Your task to perform on an android device: find which apps use the phone's location Image 0: 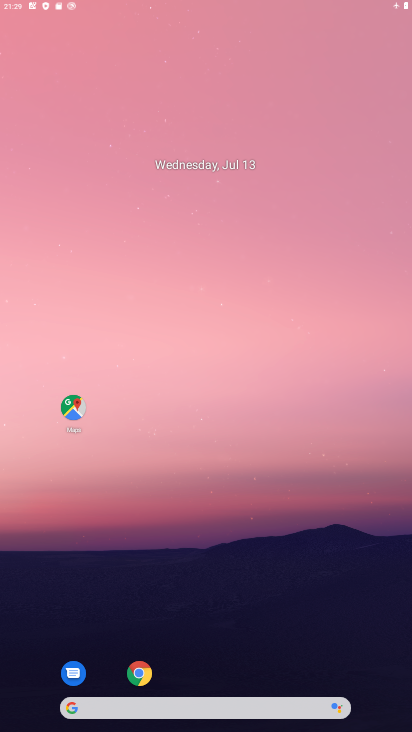
Step 0: click (202, 16)
Your task to perform on an android device: find which apps use the phone's location Image 1: 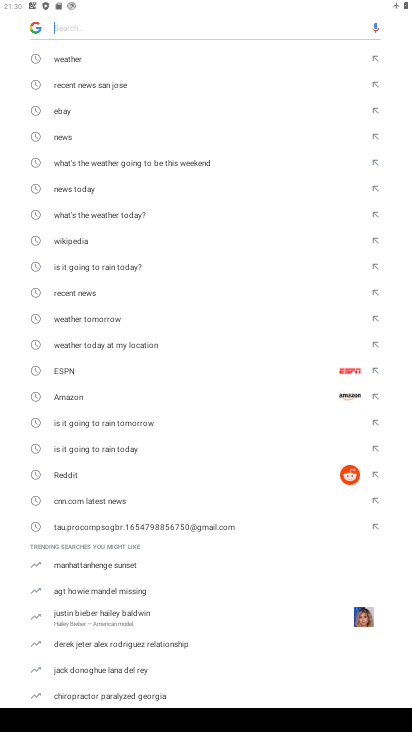
Step 1: press back button
Your task to perform on an android device: find which apps use the phone's location Image 2: 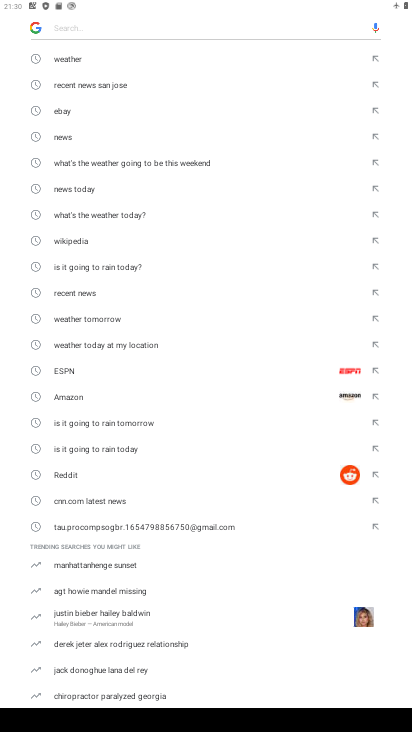
Step 2: press home button
Your task to perform on an android device: find which apps use the phone's location Image 3: 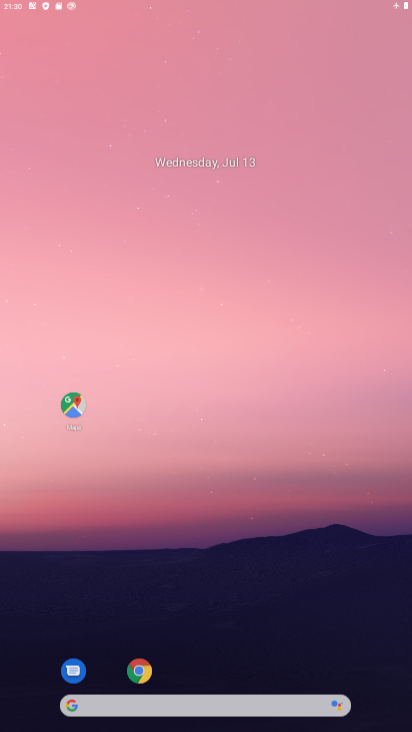
Step 3: drag from (185, 485) to (326, 10)
Your task to perform on an android device: find which apps use the phone's location Image 4: 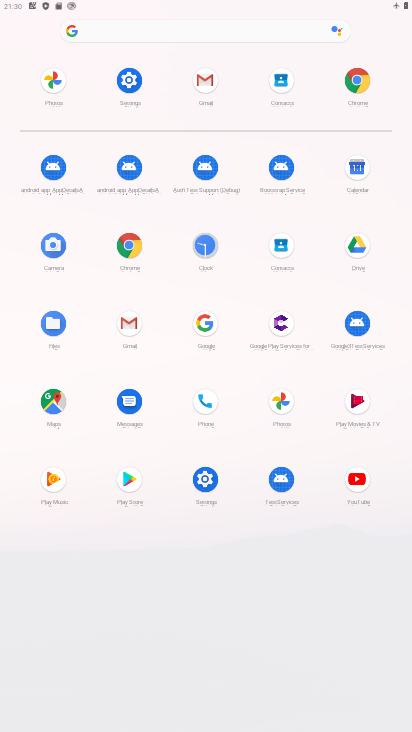
Step 4: click (128, 75)
Your task to perform on an android device: find which apps use the phone's location Image 5: 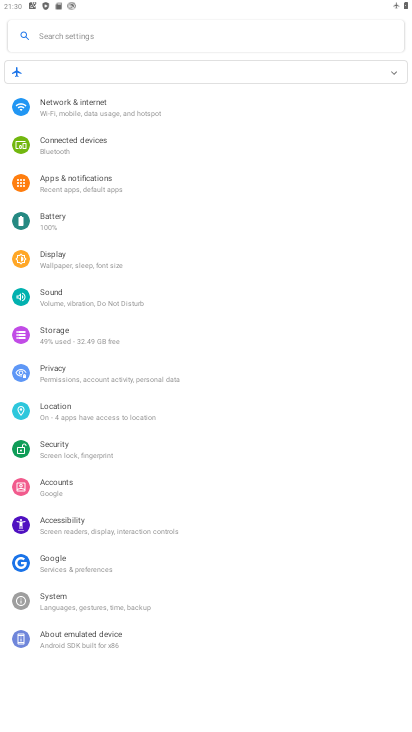
Step 5: click (80, 403)
Your task to perform on an android device: find which apps use the phone's location Image 6: 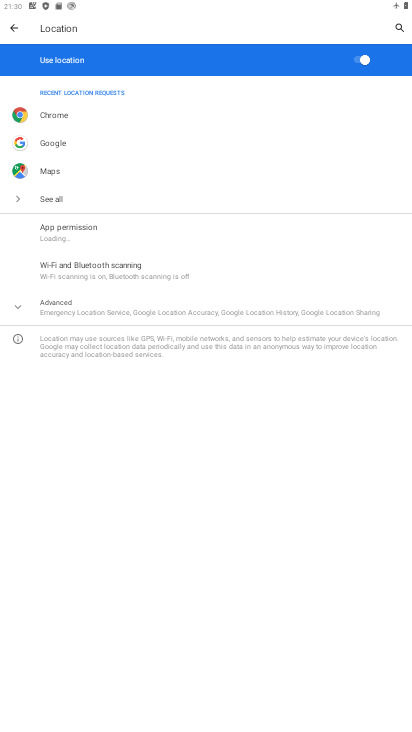
Step 6: click (96, 230)
Your task to perform on an android device: find which apps use the phone's location Image 7: 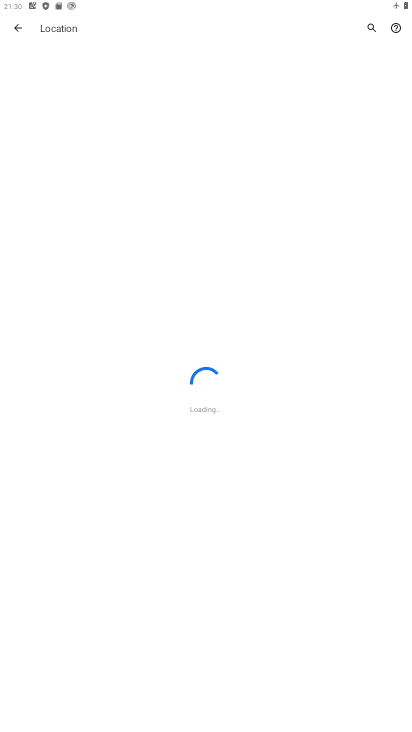
Step 7: task complete